Your task to perform on an android device: Do I have any events this weekend? Image 0: 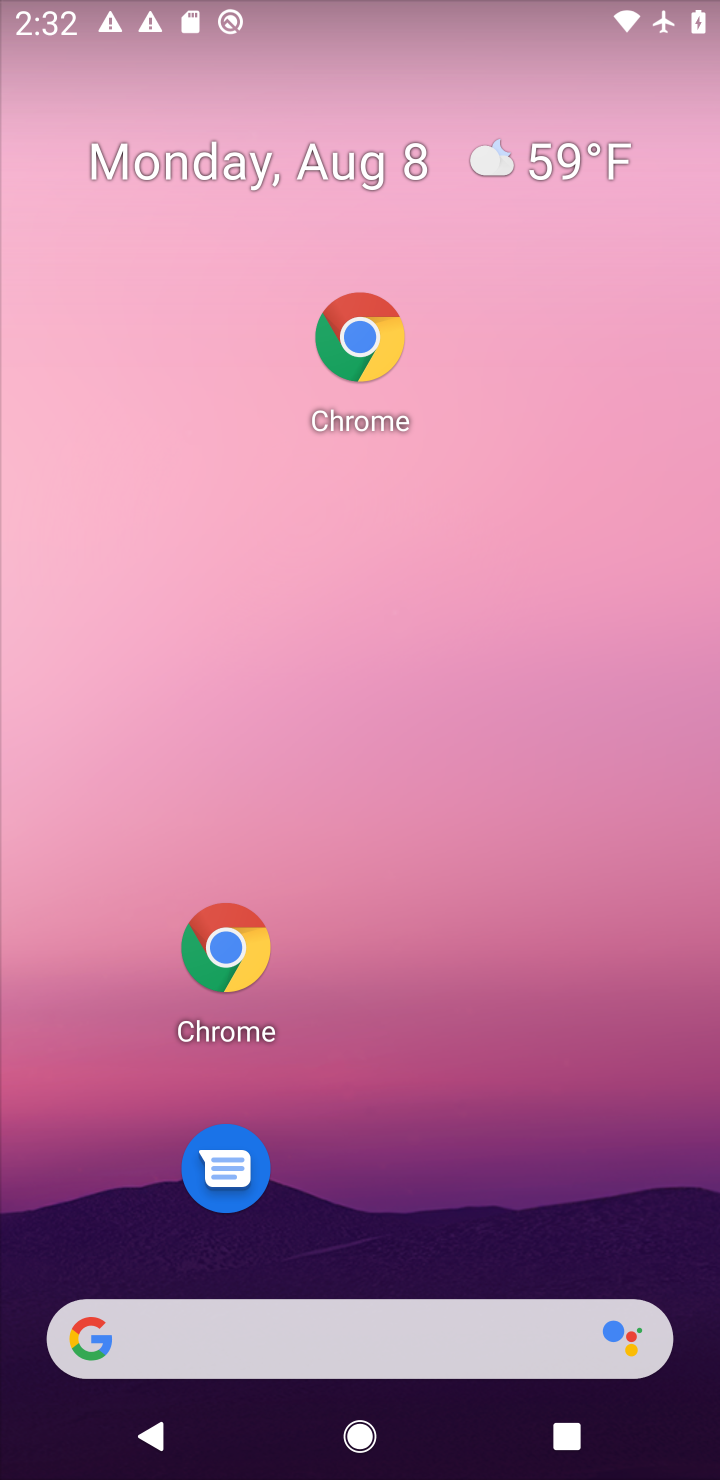
Step 0: drag from (381, 1289) to (408, 23)
Your task to perform on an android device: Do I have any events this weekend? Image 1: 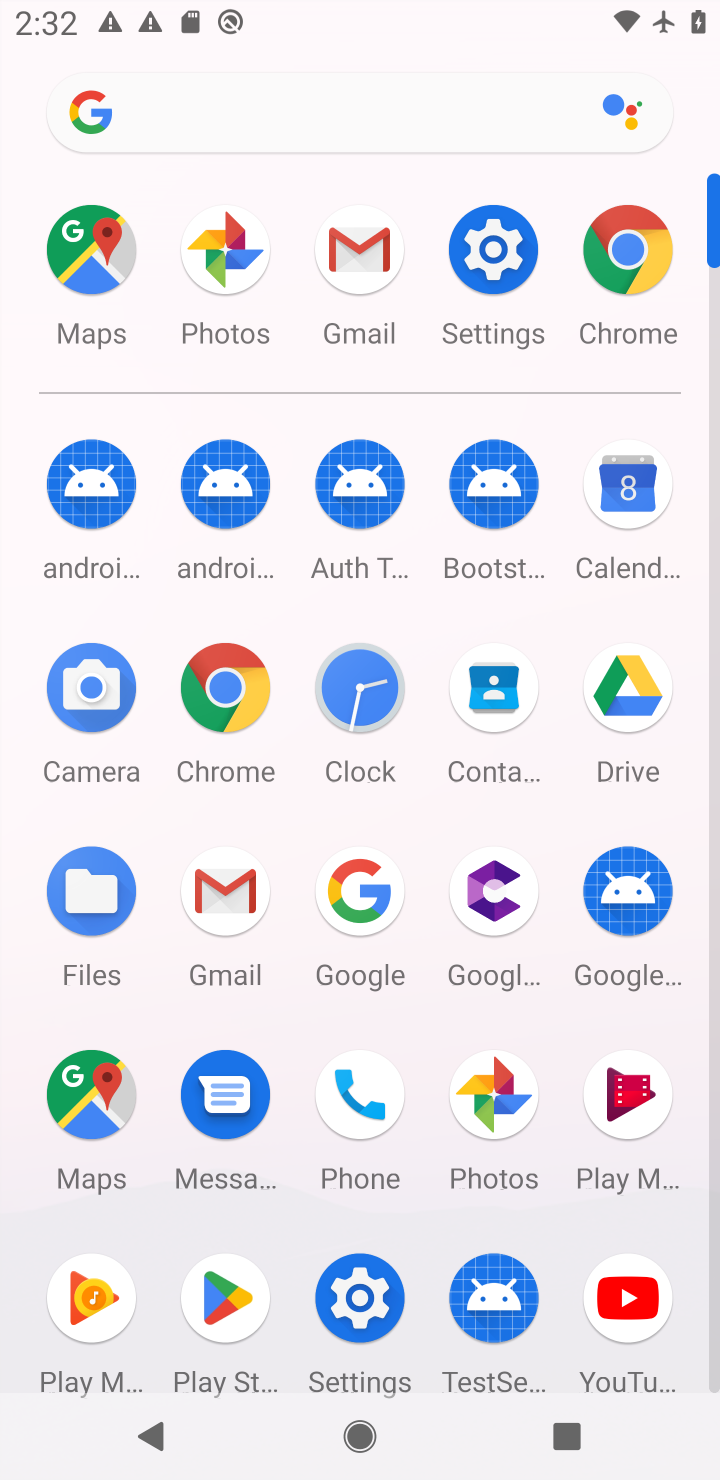
Step 1: click (628, 522)
Your task to perform on an android device: Do I have any events this weekend? Image 2: 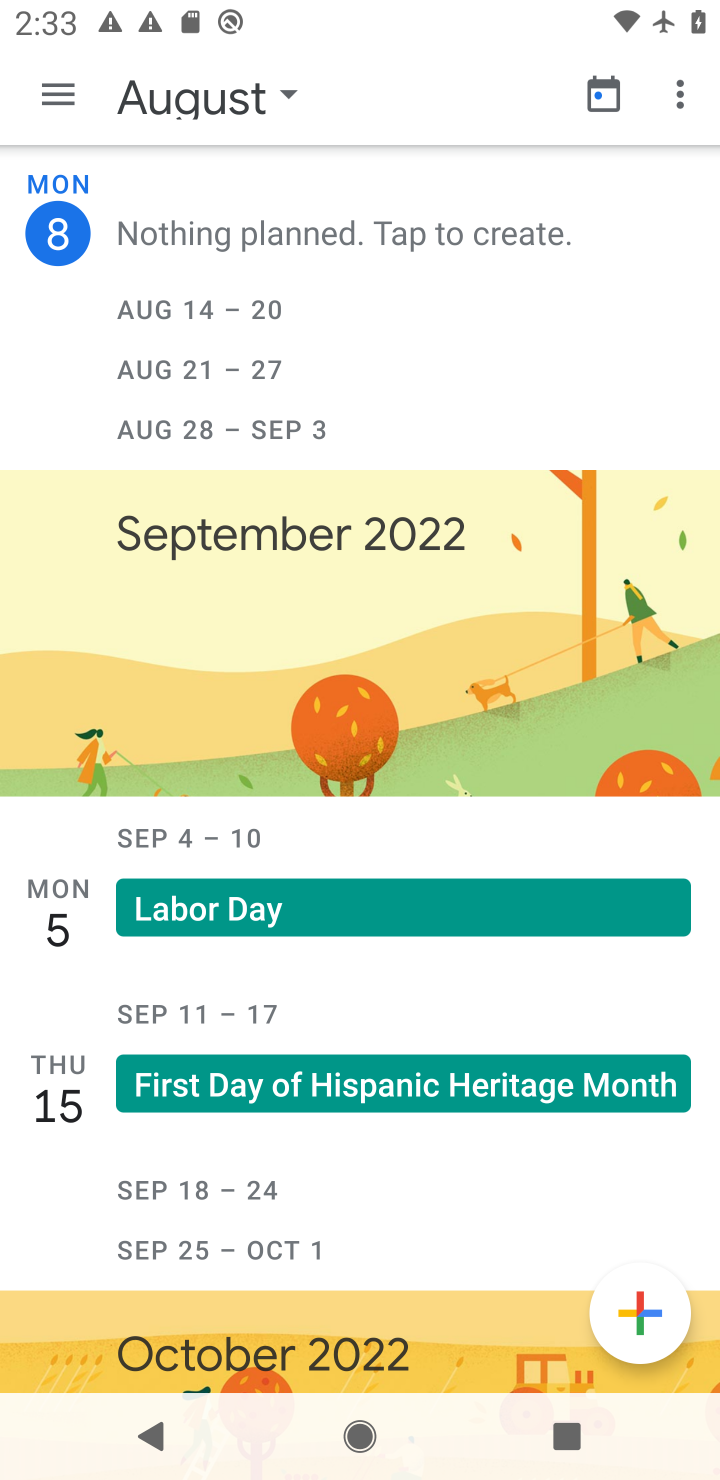
Step 2: task complete